Your task to perform on an android device: Open Reddit.com Image 0: 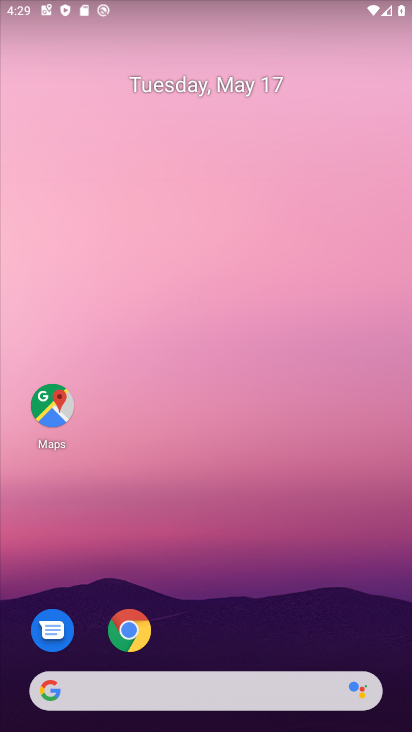
Step 0: click (128, 625)
Your task to perform on an android device: Open Reddit.com Image 1: 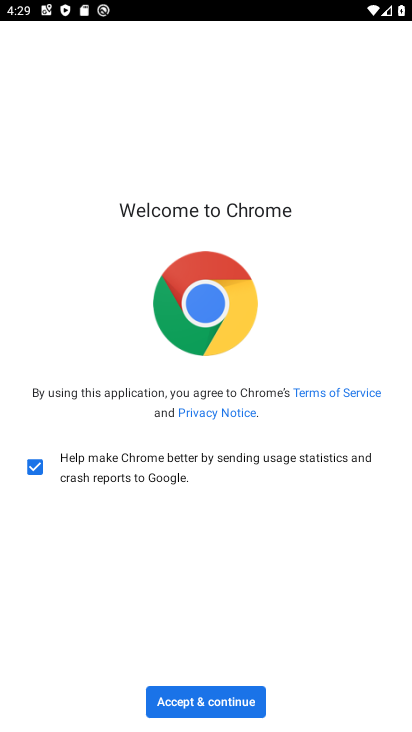
Step 1: click (215, 697)
Your task to perform on an android device: Open Reddit.com Image 2: 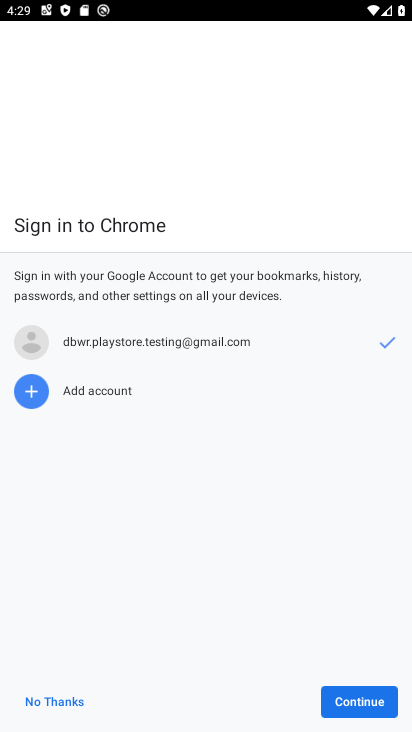
Step 2: click (357, 705)
Your task to perform on an android device: Open Reddit.com Image 3: 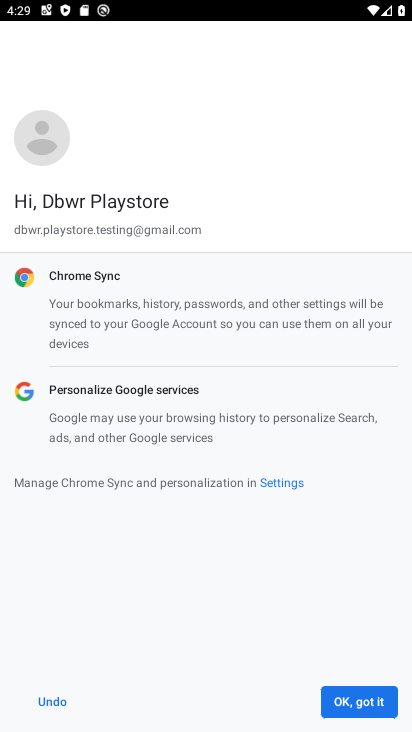
Step 3: click (357, 705)
Your task to perform on an android device: Open Reddit.com Image 4: 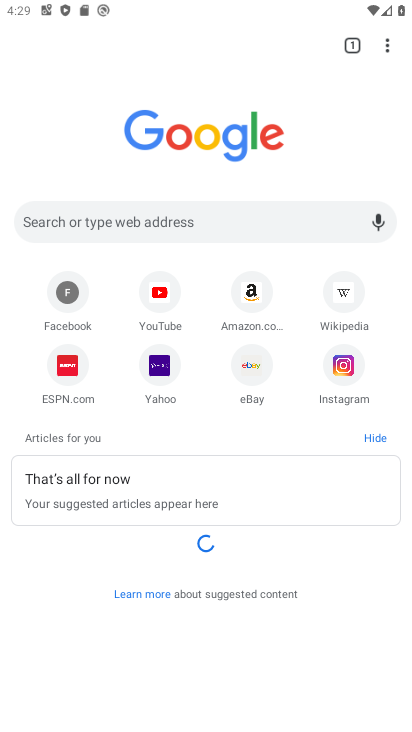
Step 4: click (121, 218)
Your task to perform on an android device: Open Reddit.com Image 5: 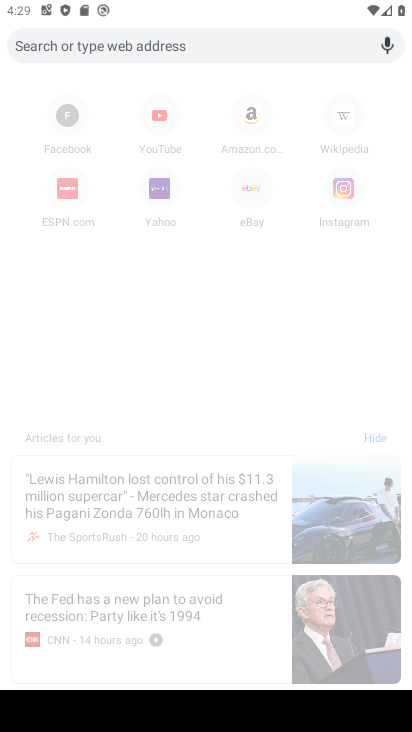
Step 5: type "Reddit.com"
Your task to perform on an android device: Open Reddit.com Image 6: 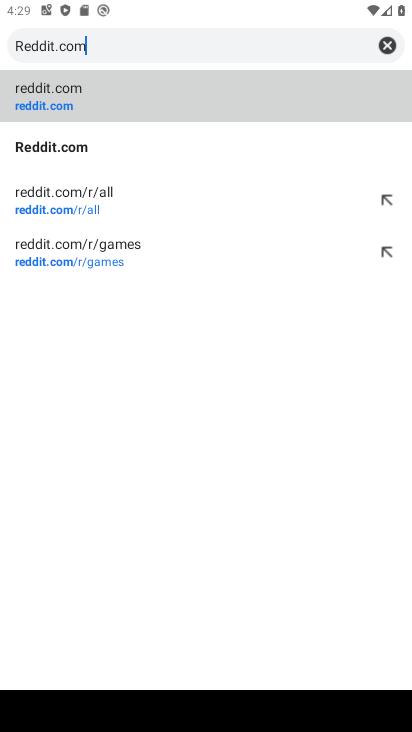
Step 6: click (56, 108)
Your task to perform on an android device: Open Reddit.com Image 7: 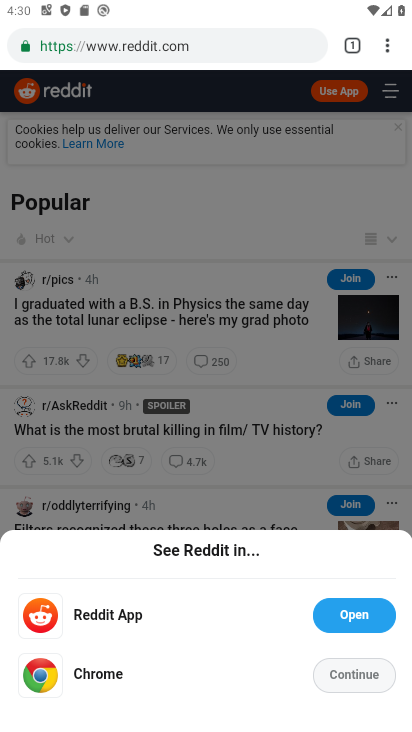
Step 7: task complete